Your task to perform on an android device: Search for hotels in Chicago Image 0: 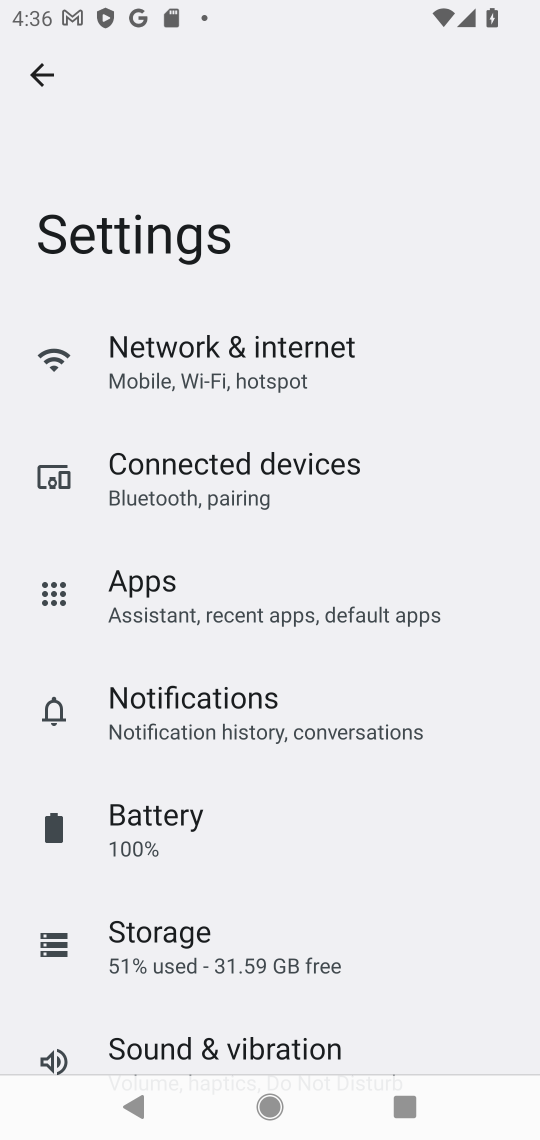
Step 0: press home button
Your task to perform on an android device: Search for hotels in Chicago Image 1: 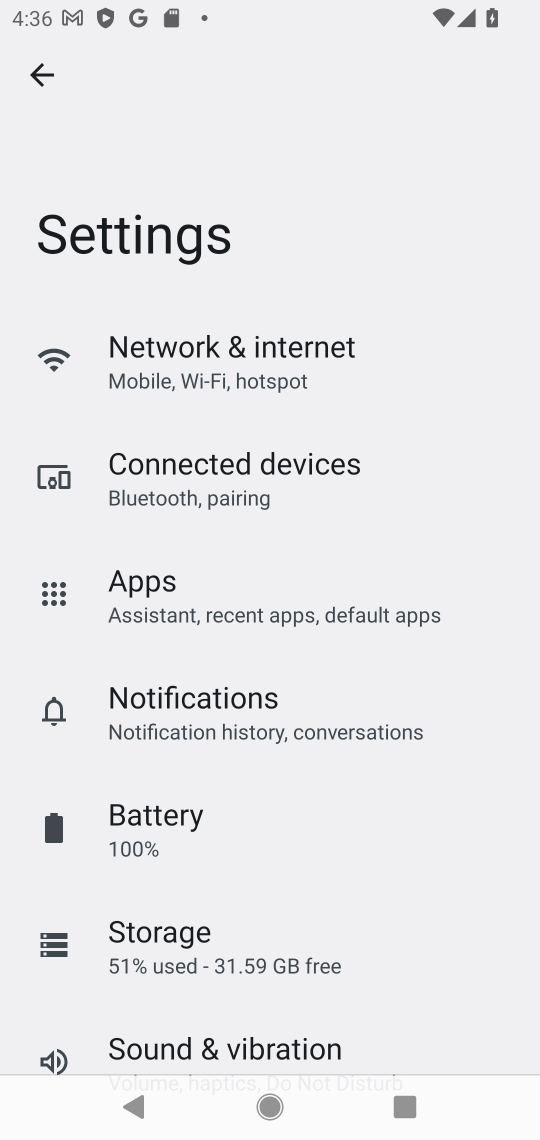
Step 1: press home button
Your task to perform on an android device: Search for hotels in Chicago Image 2: 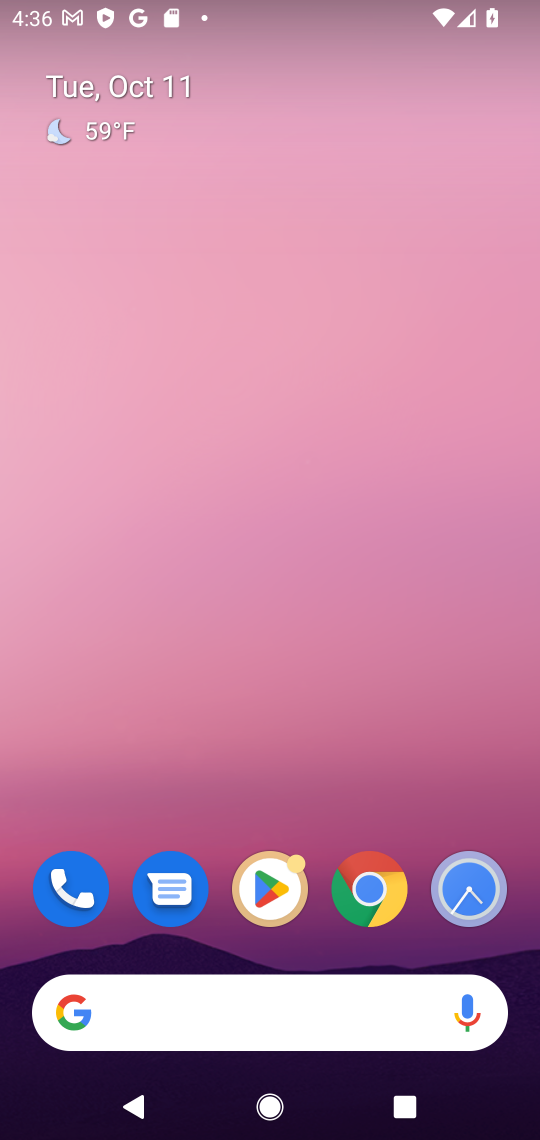
Step 2: drag from (178, 967) to (327, 281)
Your task to perform on an android device: Search for hotels in Chicago Image 3: 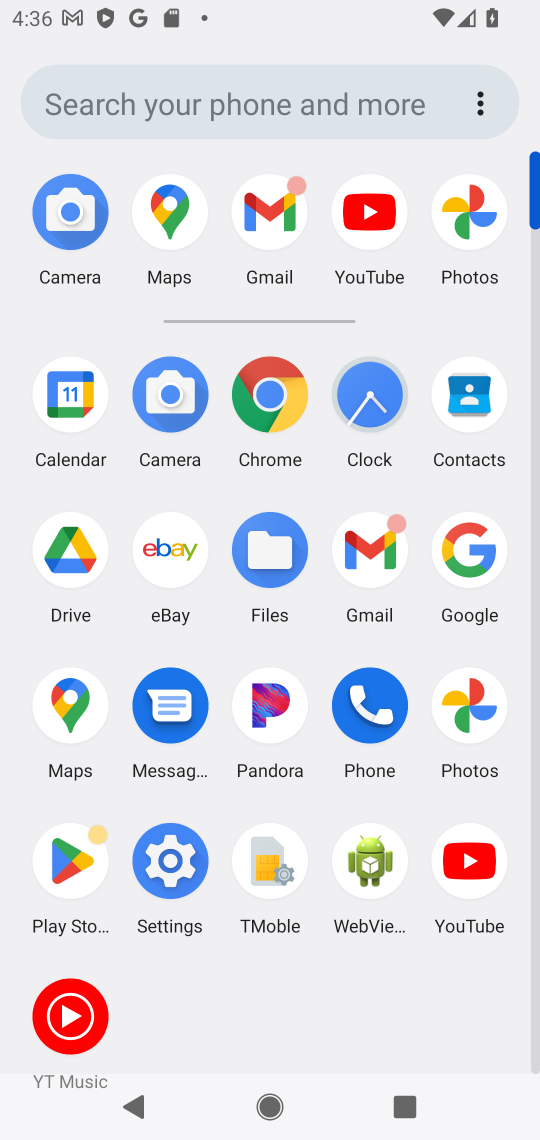
Step 3: click (455, 528)
Your task to perform on an android device: Search for hotels in Chicago Image 4: 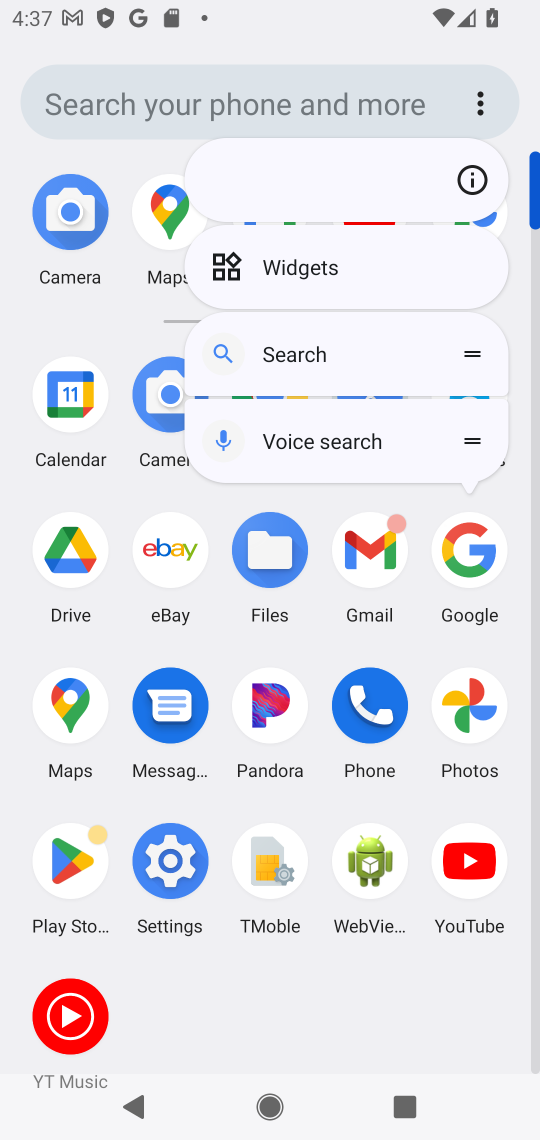
Step 4: click (467, 552)
Your task to perform on an android device: Search for hotels in Chicago Image 5: 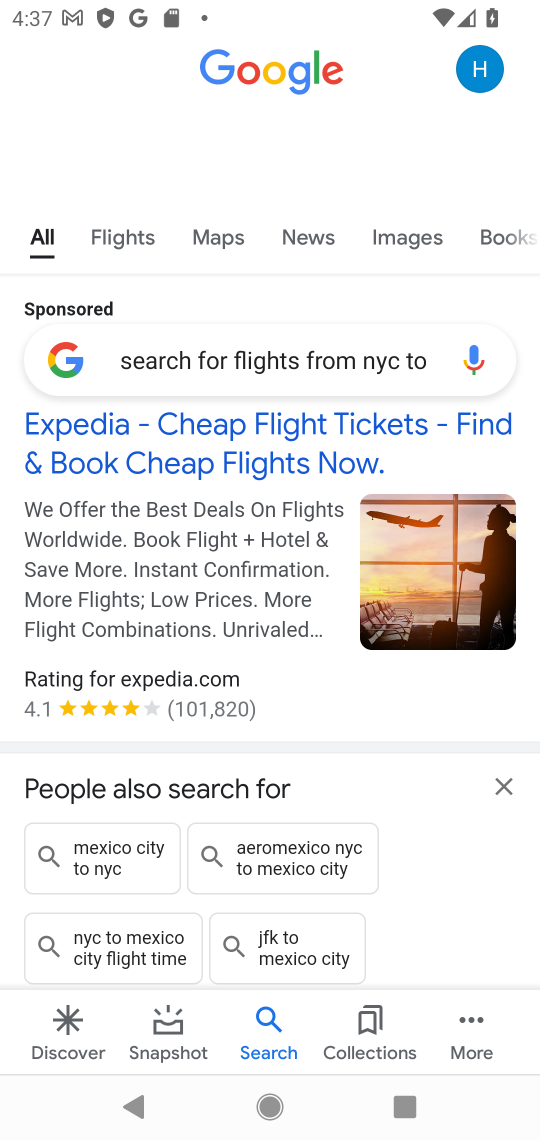
Step 5: click (220, 349)
Your task to perform on an android device: Search for hotels in Chicago Image 6: 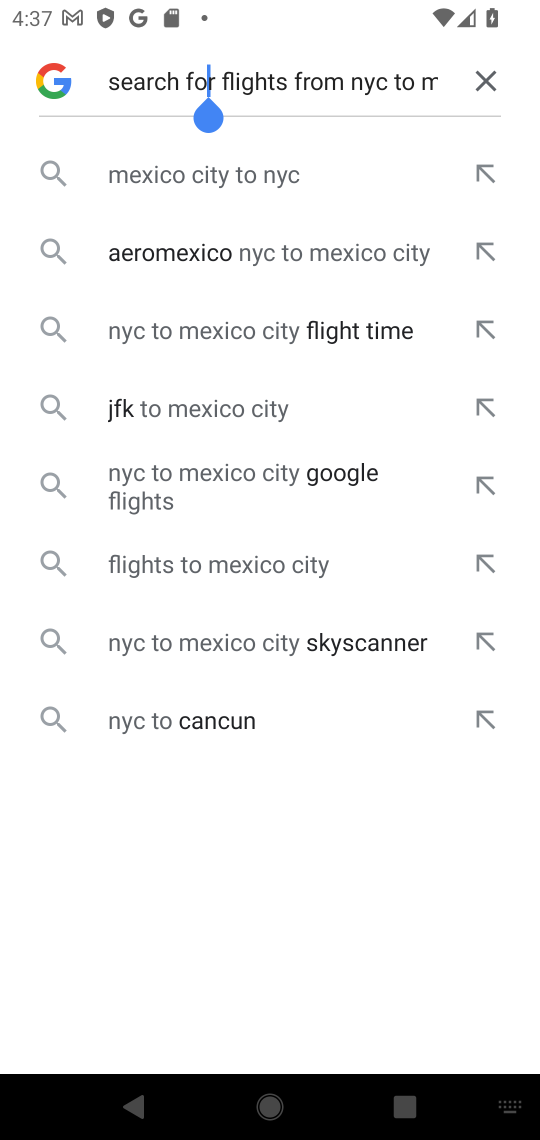
Step 6: click (473, 75)
Your task to perform on an android device: Search for hotels in Chicago Image 7: 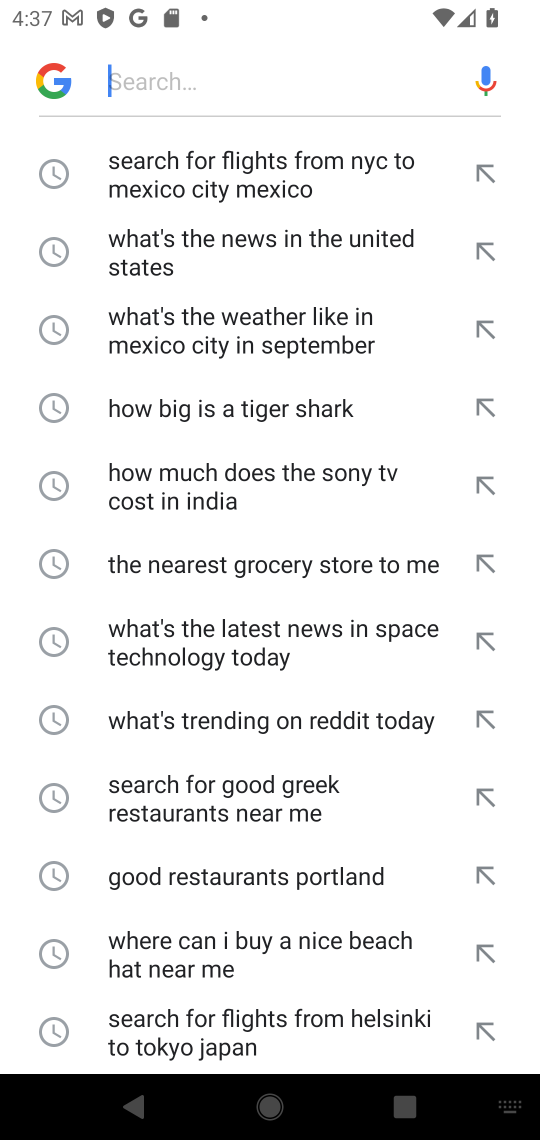
Step 7: click (252, 64)
Your task to perform on an android device: Search for hotels in Chicago Image 8: 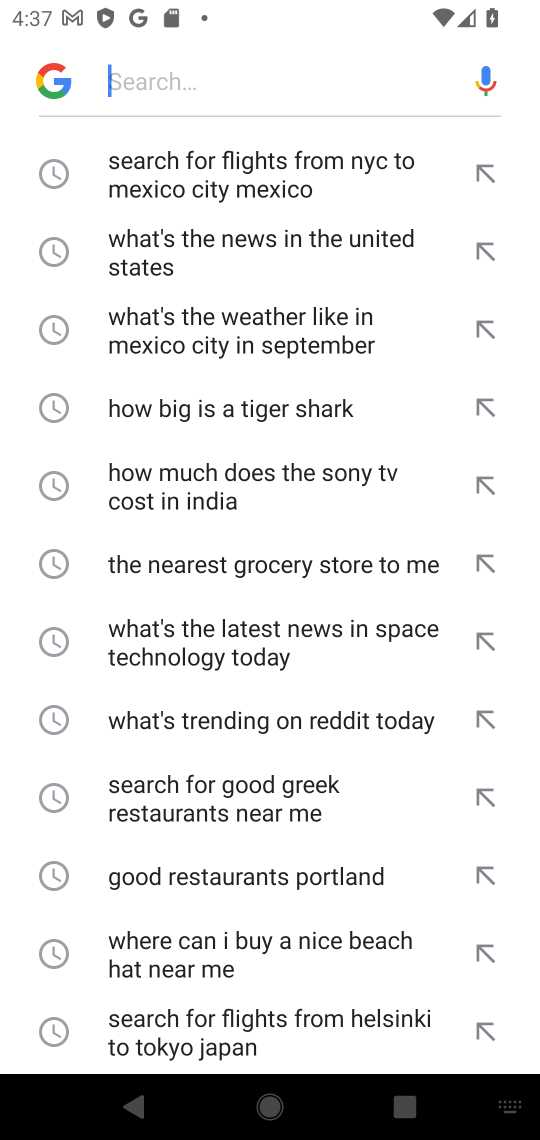
Step 8: type "Search for hotels in Chicago "
Your task to perform on an android device: Search for hotels in Chicago Image 9: 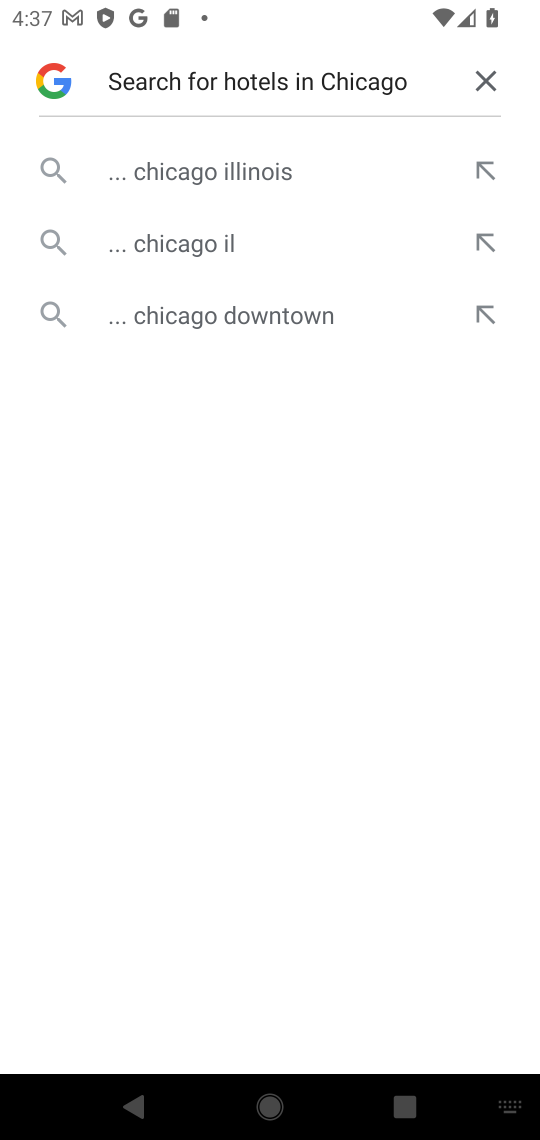
Step 9: click (216, 238)
Your task to perform on an android device: Search for hotels in Chicago Image 10: 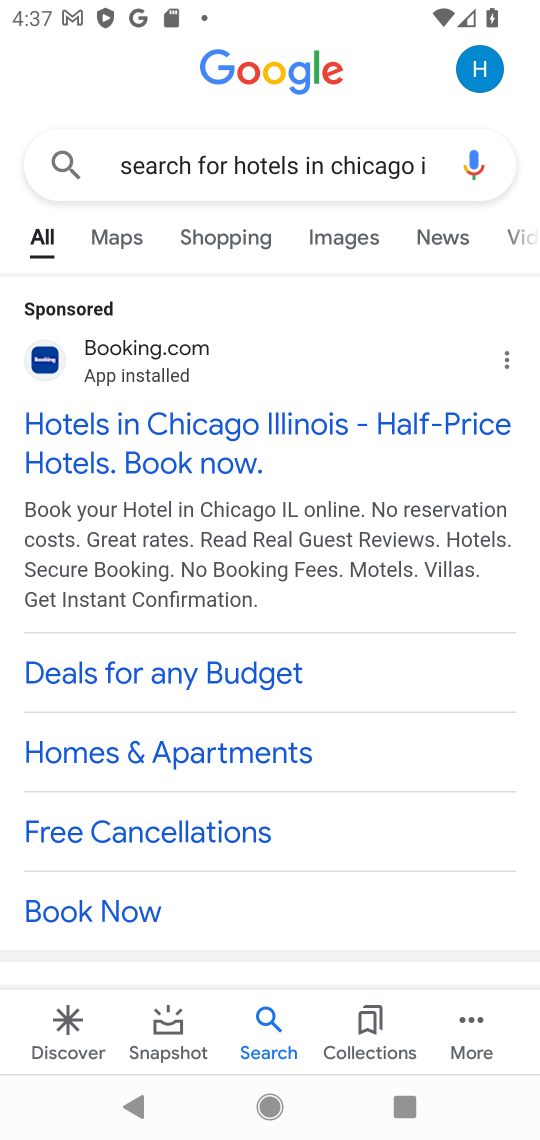
Step 10: click (153, 428)
Your task to perform on an android device: Search for hotels in Chicago Image 11: 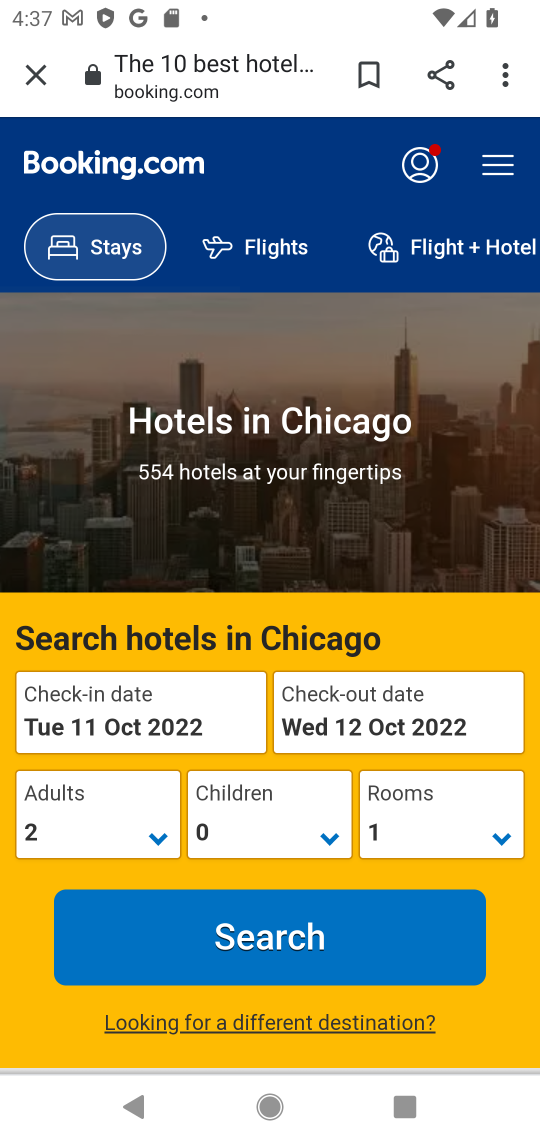
Step 11: click (191, 921)
Your task to perform on an android device: Search for hotels in Chicago Image 12: 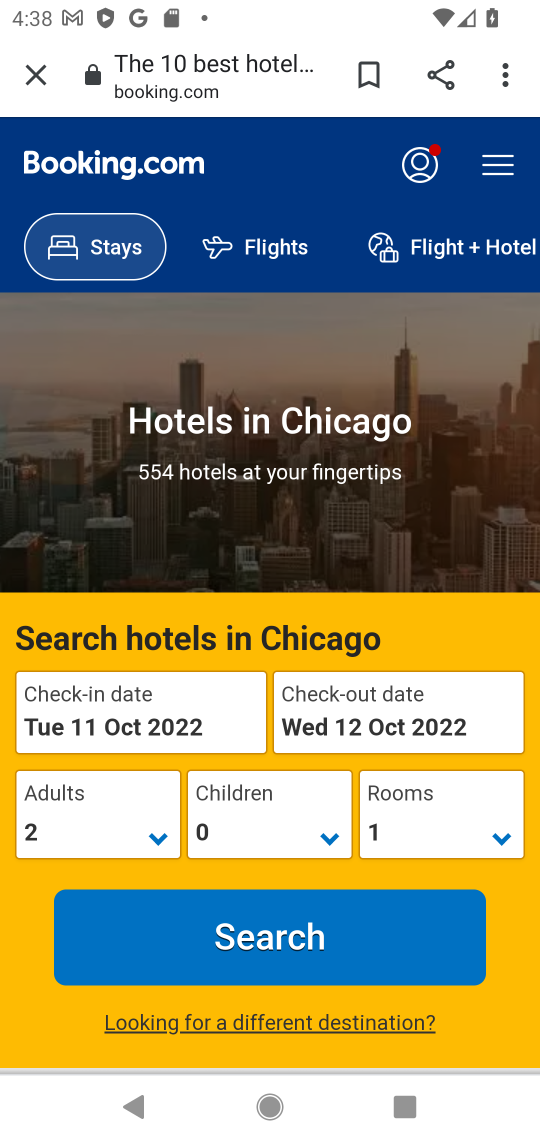
Step 12: click (286, 927)
Your task to perform on an android device: Search for hotels in Chicago Image 13: 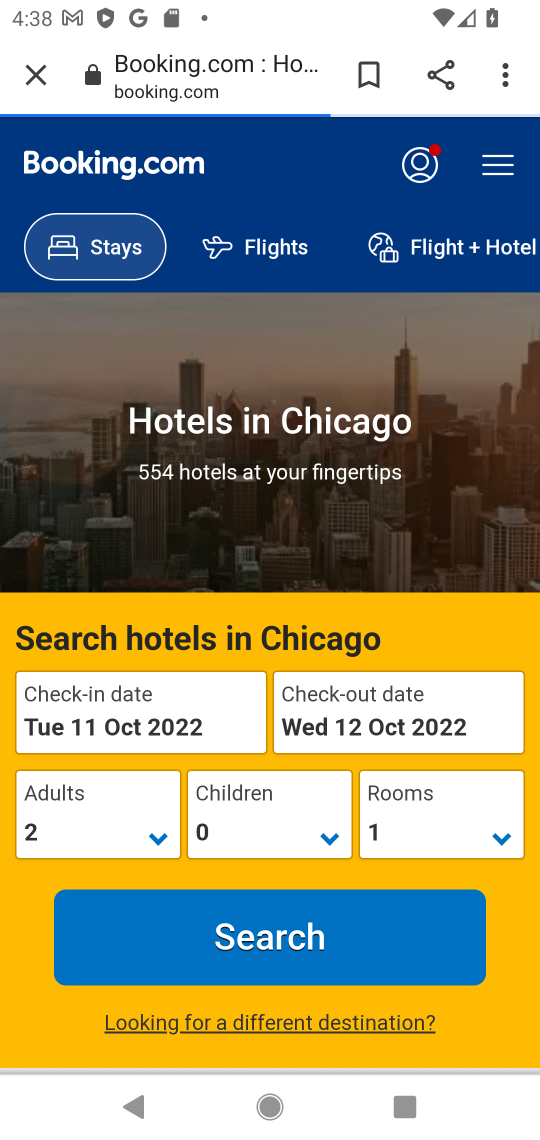
Step 13: click (266, 930)
Your task to perform on an android device: Search for hotels in Chicago Image 14: 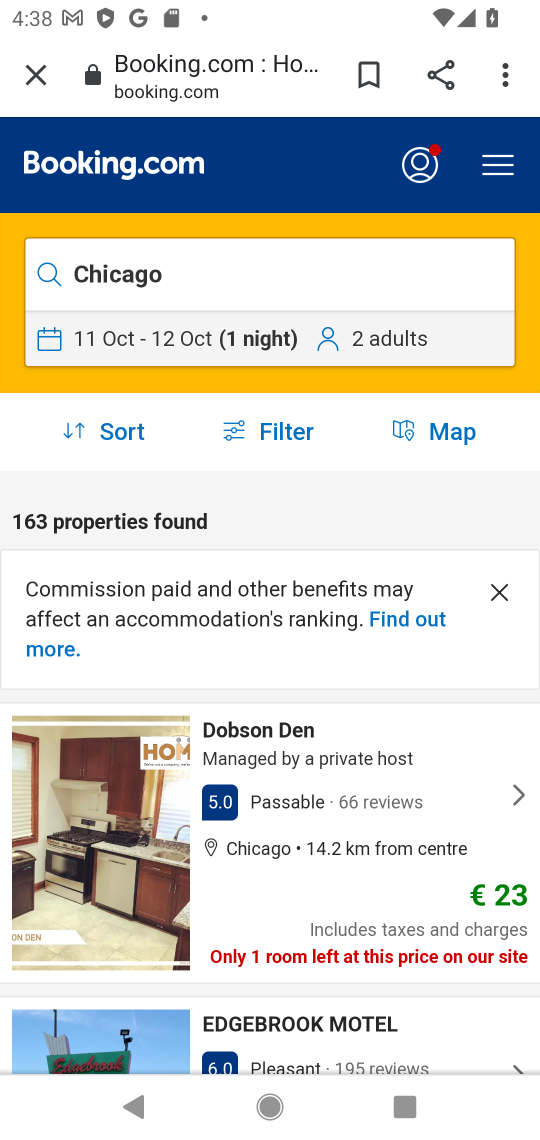
Step 14: task complete